Your task to perform on an android device: Open display settings Image 0: 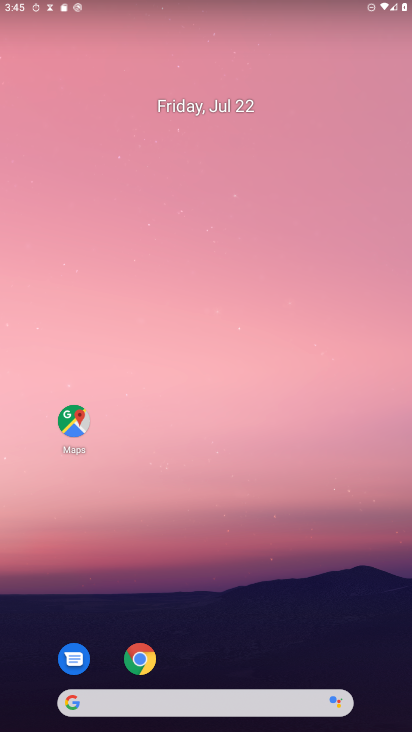
Step 0: drag from (305, 566) to (331, 0)
Your task to perform on an android device: Open display settings Image 1: 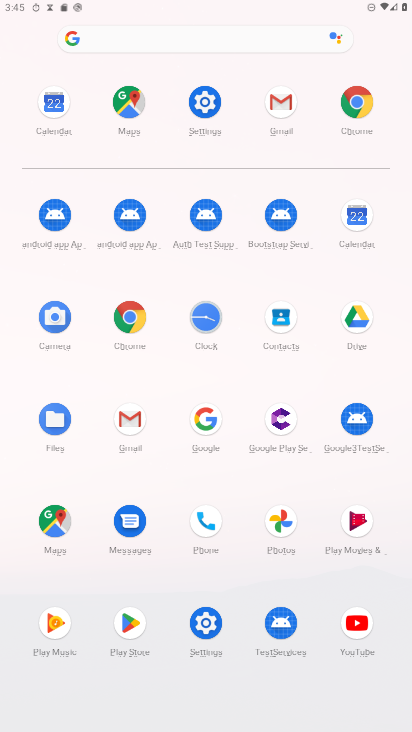
Step 1: click (212, 104)
Your task to perform on an android device: Open display settings Image 2: 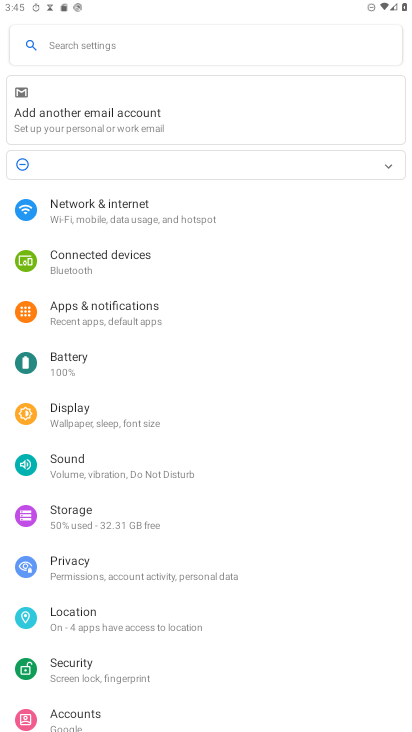
Step 2: click (142, 421)
Your task to perform on an android device: Open display settings Image 3: 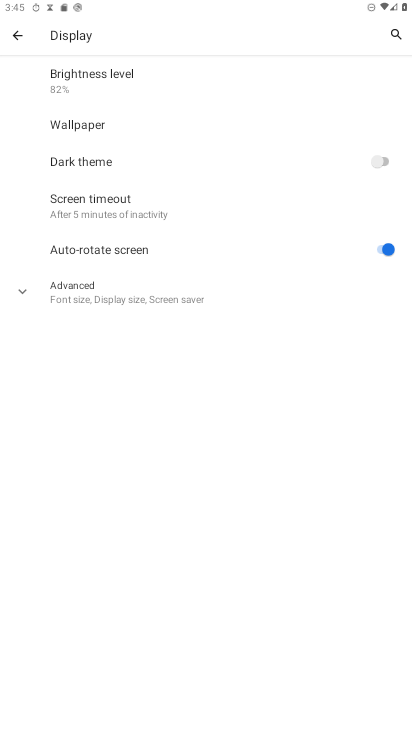
Step 3: task complete